Your task to perform on an android device: add a label to a message in the gmail app Image 0: 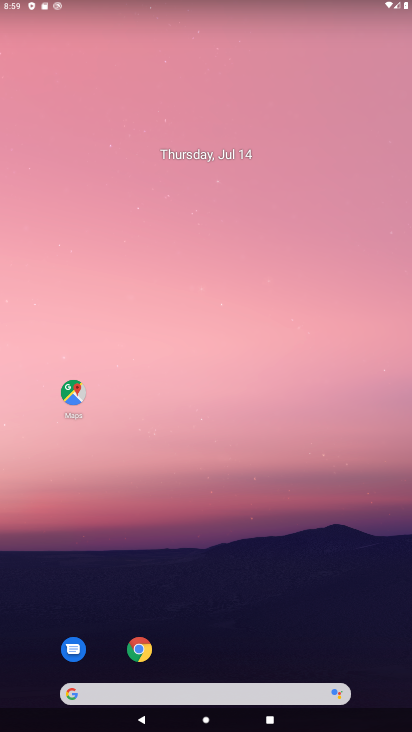
Step 0: drag from (211, 561) to (222, 240)
Your task to perform on an android device: add a label to a message in the gmail app Image 1: 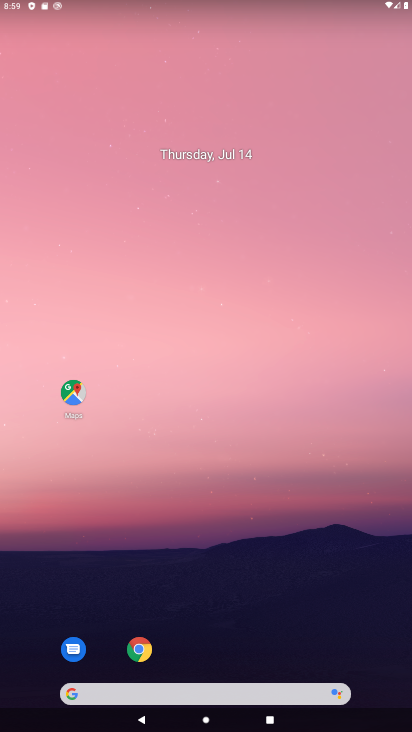
Step 1: drag from (220, 252) to (204, 53)
Your task to perform on an android device: add a label to a message in the gmail app Image 2: 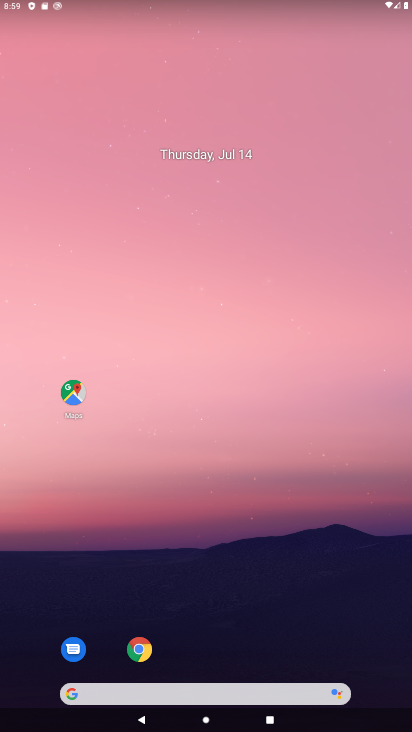
Step 2: drag from (171, 666) to (280, 19)
Your task to perform on an android device: add a label to a message in the gmail app Image 3: 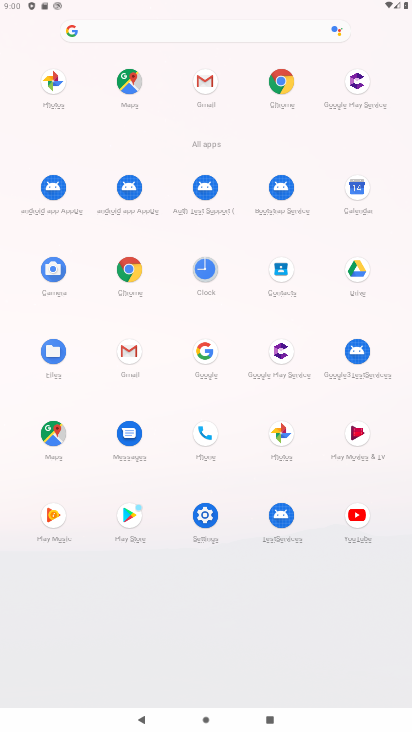
Step 3: click (205, 83)
Your task to perform on an android device: add a label to a message in the gmail app Image 4: 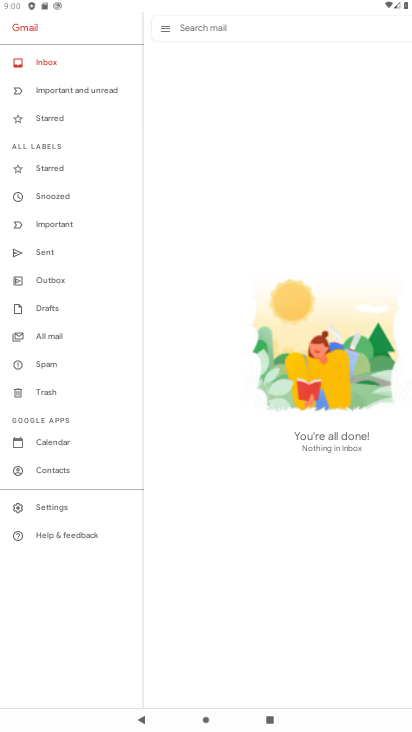
Step 4: click (46, 496)
Your task to perform on an android device: add a label to a message in the gmail app Image 5: 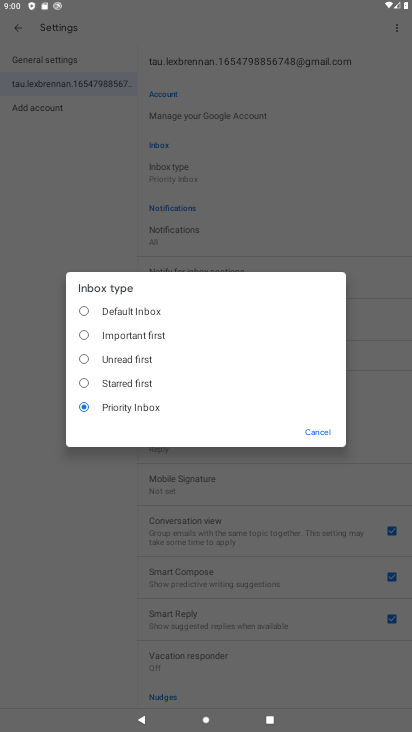
Step 5: click (320, 438)
Your task to perform on an android device: add a label to a message in the gmail app Image 6: 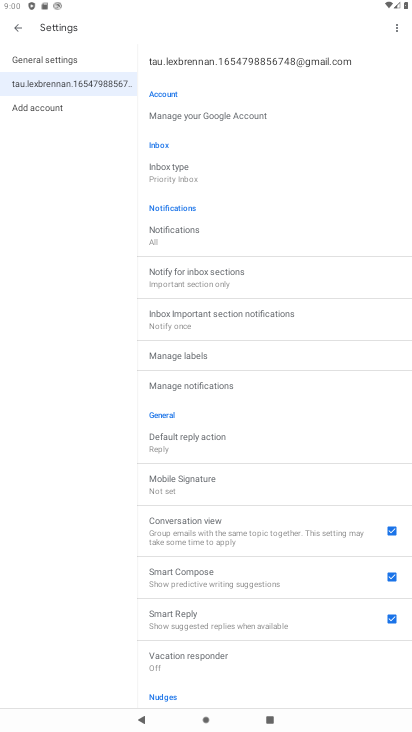
Step 6: click (24, 27)
Your task to perform on an android device: add a label to a message in the gmail app Image 7: 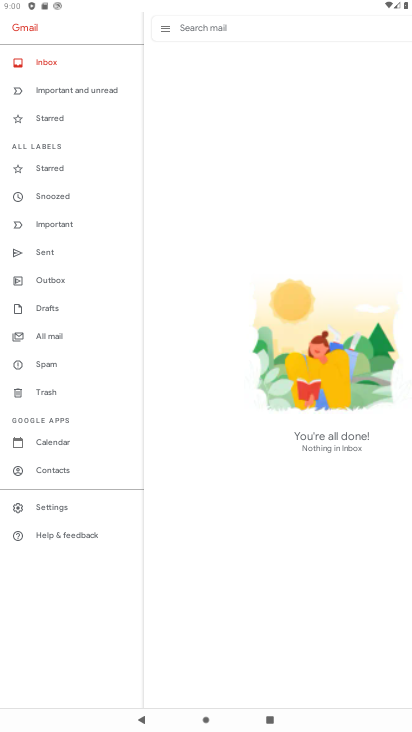
Step 7: click (61, 336)
Your task to perform on an android device: add a label to a message in the gmail app Image 8: 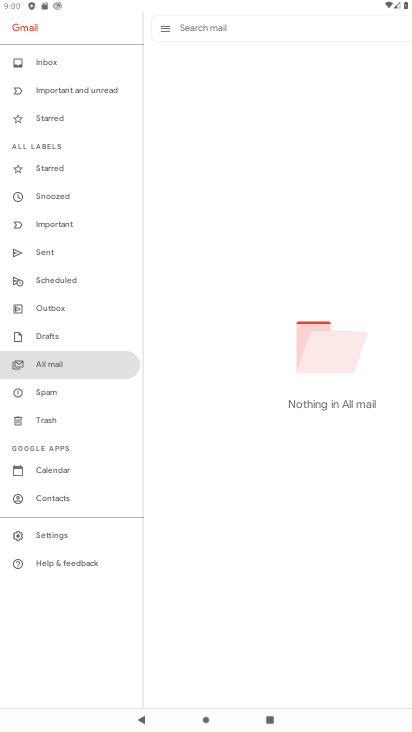
Step 8: task complete